Your task to perform on an android device: clear all cookies in the chrome app Image 0: 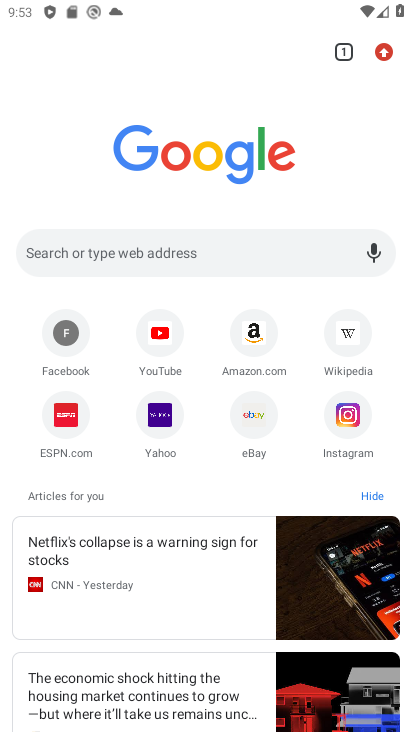
Step 0: click (388, 48)
Your task to perform on an android device: clear all cookies in the chrome app Image 1: 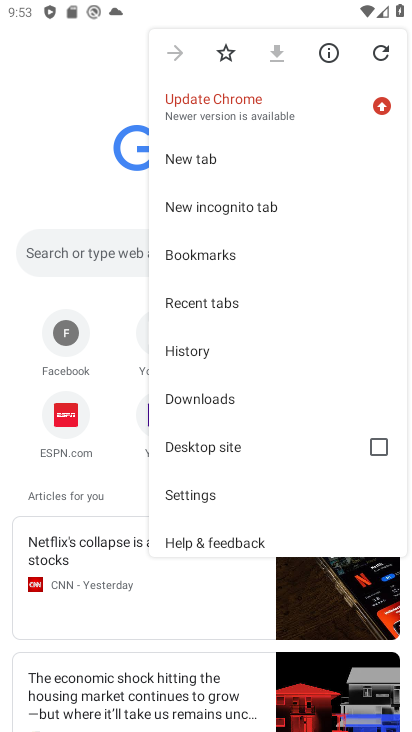
Step 1: click (227, 352)
Your task to perform on an android device: clear all cookies in the chrome app Image 2: 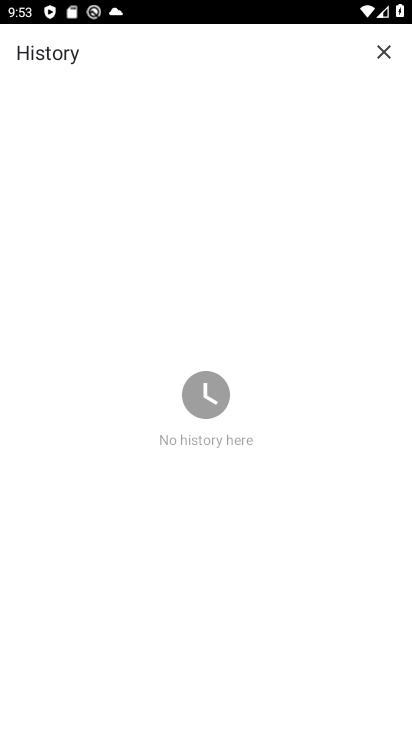
Step 2: task complete